Your task to perform on an android device: Open Amazon Image 0: 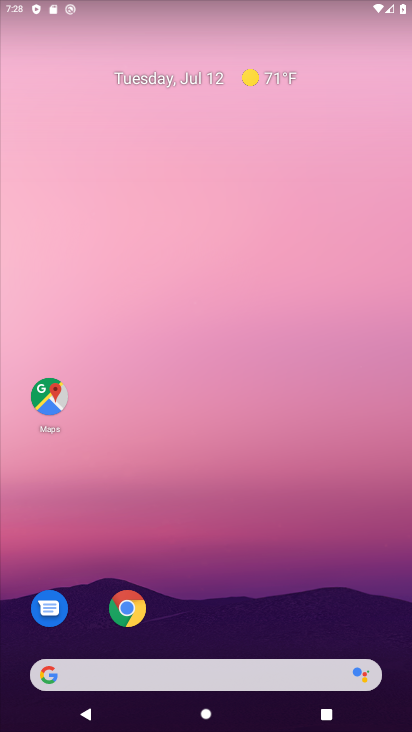
Step 0: click (129, 607)
Your task to perform on an android device: Open Amazon Image 1: 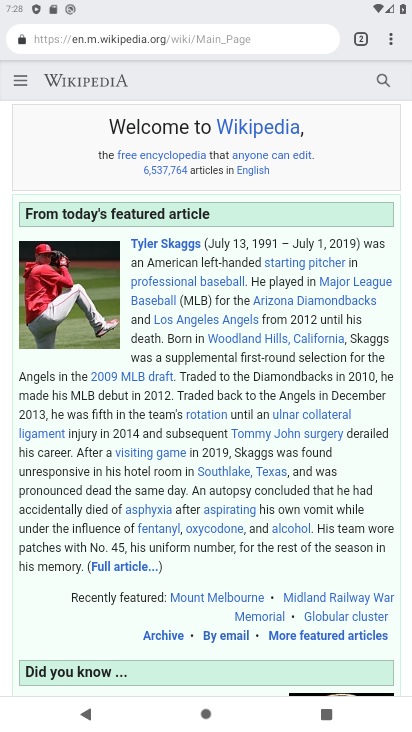
Step 1: click (391, 32)
Your task to perform on an android device: Open Amazon Image 2: 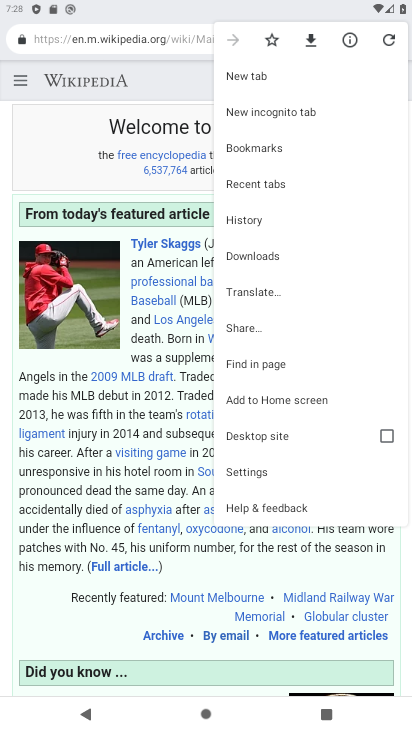
Step 2: click (251, 70)
Your task to perform on an android device: Open Amazon Image 3: 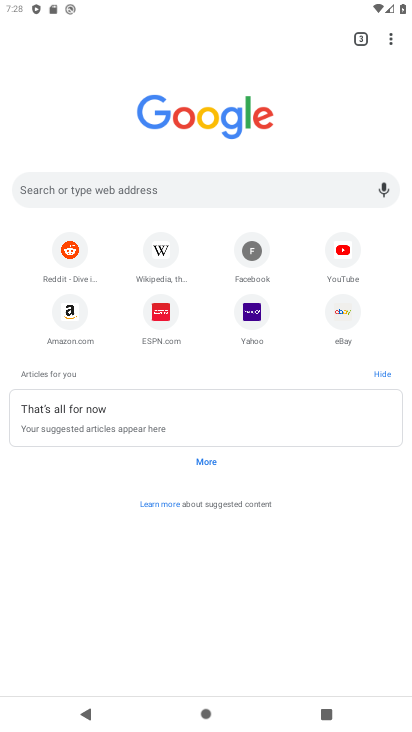
Step 3: click (63, 309)
Your task to perform on an android device: Open Amazon Image 4: 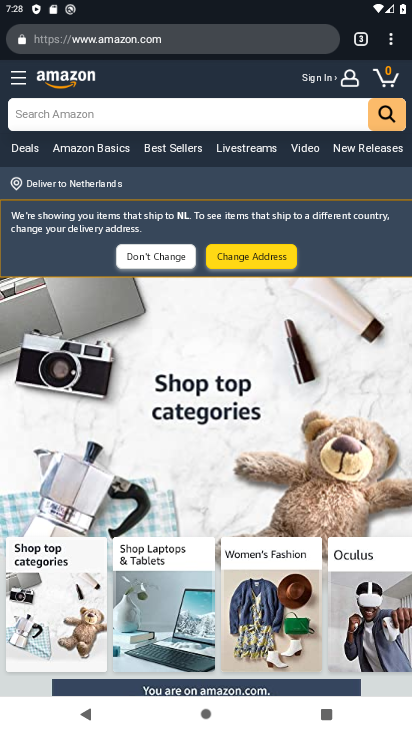
Step 4: task complete